Your task to perform on an android device: Open location settings Image 0: 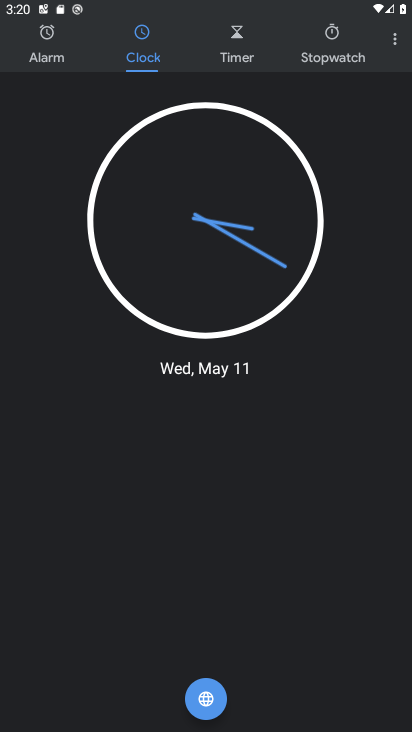
Step 0: click (396, 41)
Your task to perform on an android device: Open location settings Image 1: 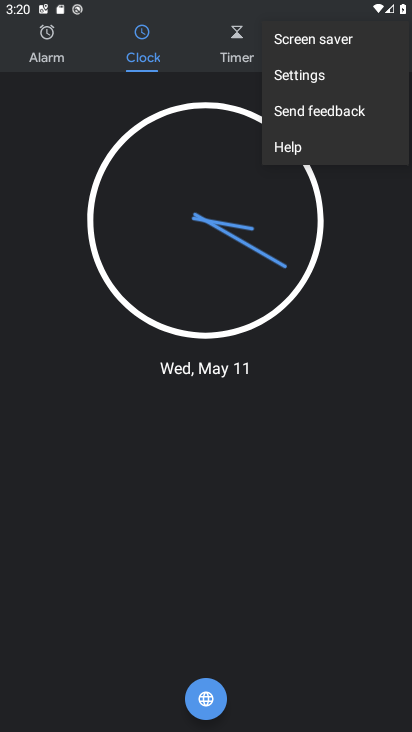
Step 1: click (305, 81)
Your task to perform on an android device: Open location settings Image 2: 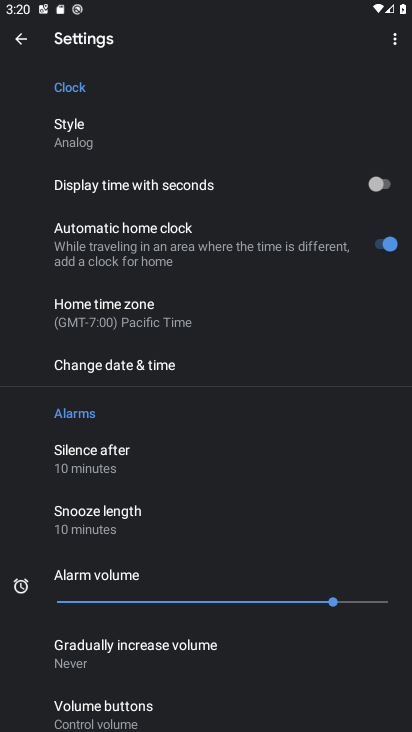
Step 2: press home button
Your task to perform on an android device: Open location settings Image 3: 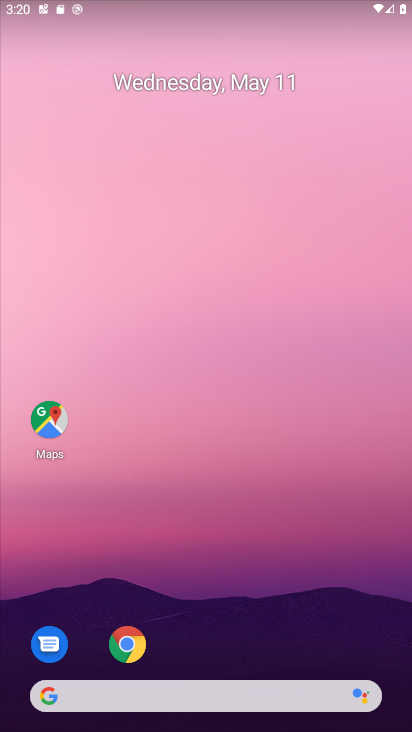
Step 3: drag from (199, 663) to (130, 57)
Your task to perform on an android device: Open location settings Image 4: 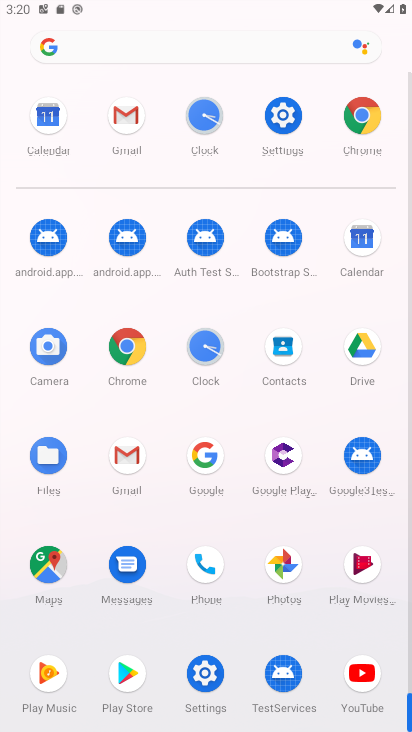
Step 4: click (278, 124)
Your task to perform on an android device: Open location settings Image 5: 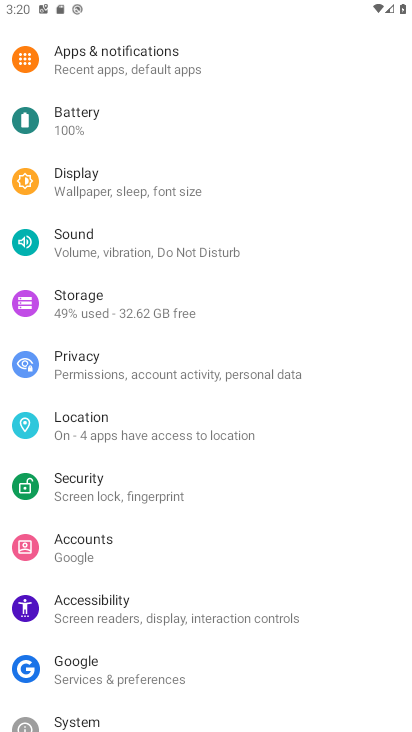
Step 5: click (97, 430)
Your task to perform on an android device: Open location settings Image 6: 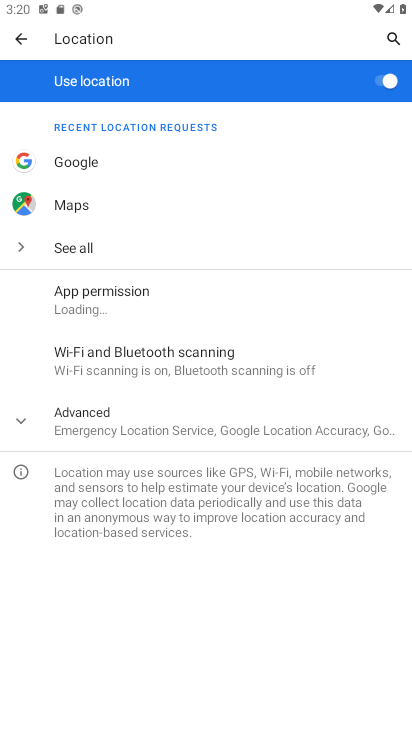
Step 6: task complete